Your task to perform on an android device: toggle pop-ups in chrome Image 0: 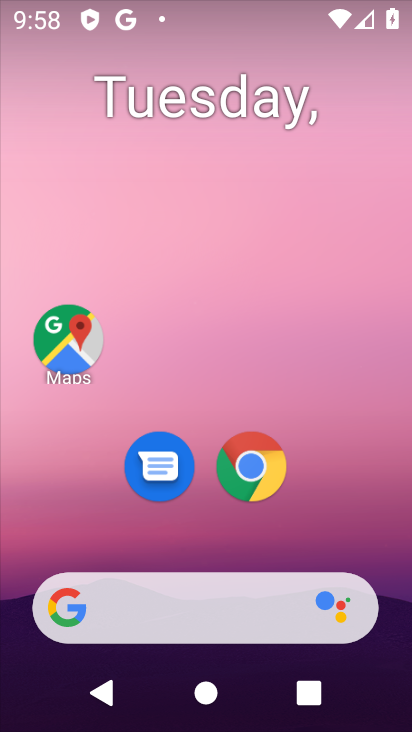
Step 0: click (250, 464)
Your task to perform on an android device: toggle pop-ups in chrome Image 1: 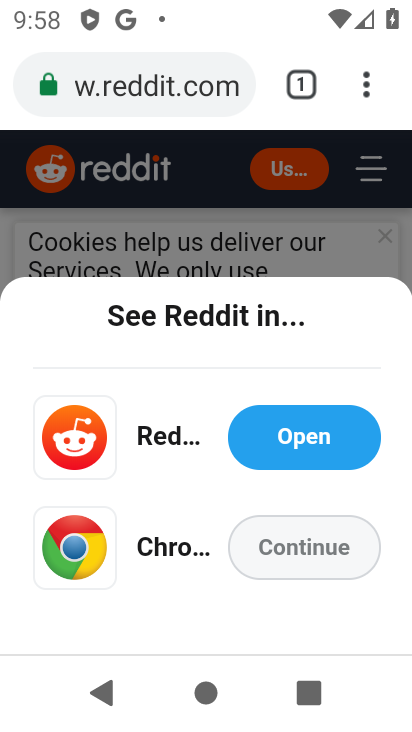
Step 1: drag from (365, 80) to (224, 528)
Your task to perform on an android device: toggle pop-ups in chrome Image 2: 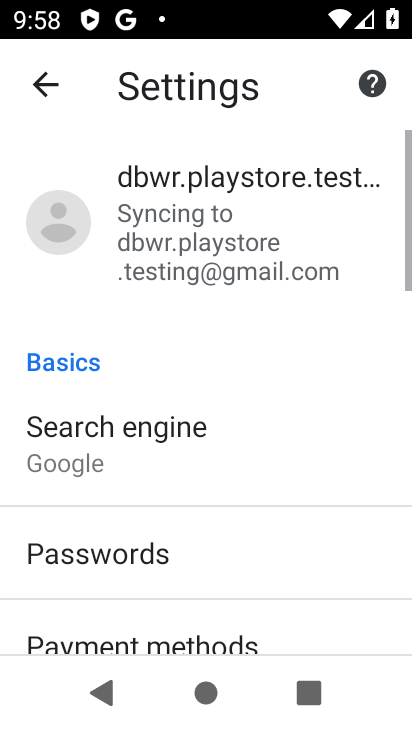
Step 2: drag from (206, 497) to (182, 81)
Your task to perform on an android device: toggle pop-ups in chrome Image 3: 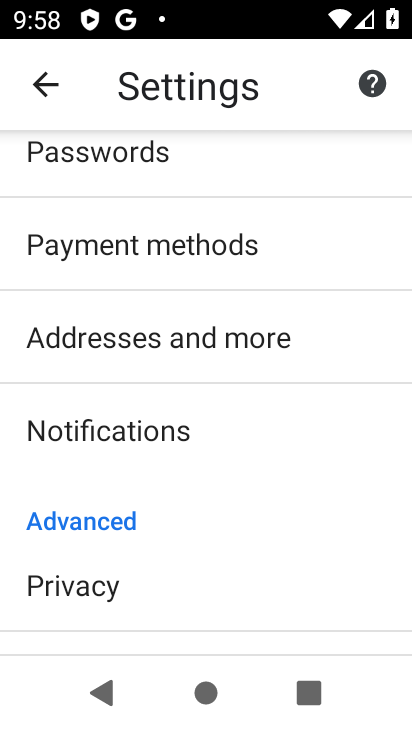
Step 3: drag from (203, 489) to (233, 152)
Your task to perform on an android device: toggle pop-ups in chrome Image 4: 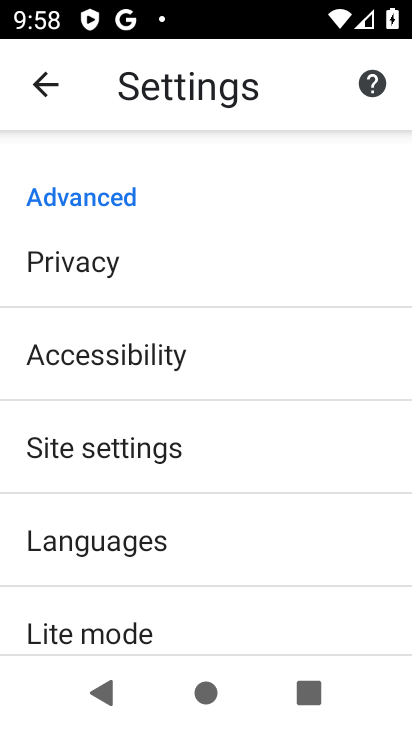
Step 4: click (141, 439)
Your task to perform on an android device: toggle pop-ups in chrome Image 5: 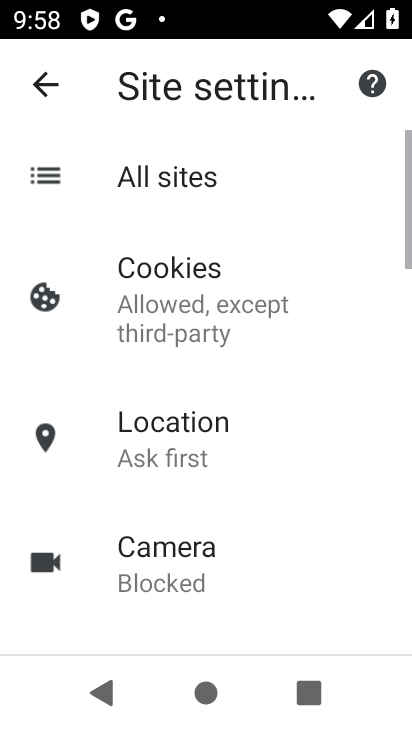
Step 5: drag from (283, 541) to (238, 165)
Your task to perform on an android device: toggle pop-ups in chrome Image 6: 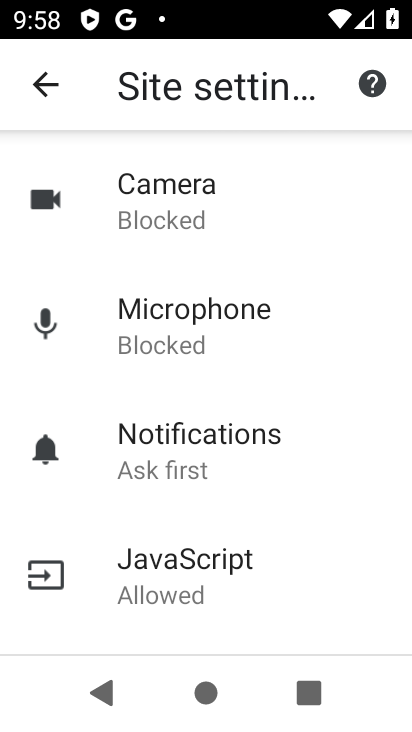
Step 6: drag from (216, 464) to (216, 188)
Your task to perform on an android device: toggle pop-ups in chrome Image 7: 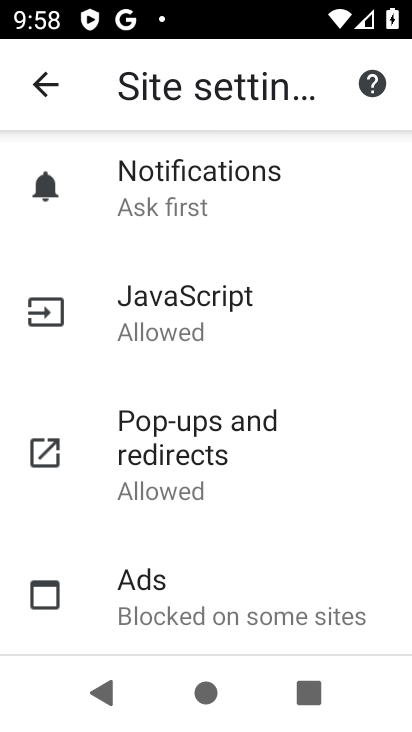
Step 7: click (217, 449)
Your task to perform on an android device: toggle pop-ups in chrome Image 8: 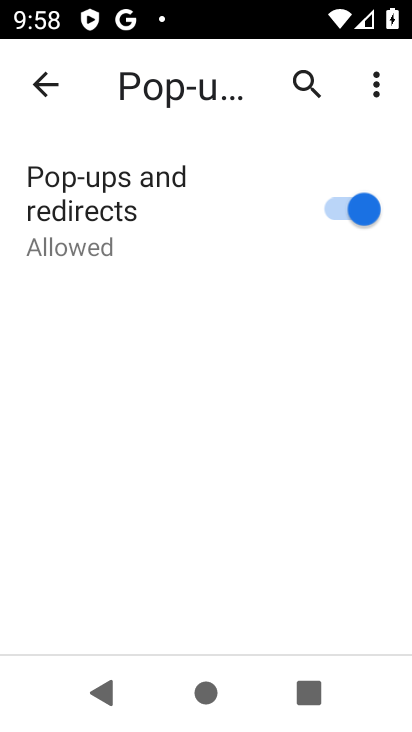
Step 8: click (350, 196)
Your task to perform on an android device: toggle pop-ups in chrome Image 9: 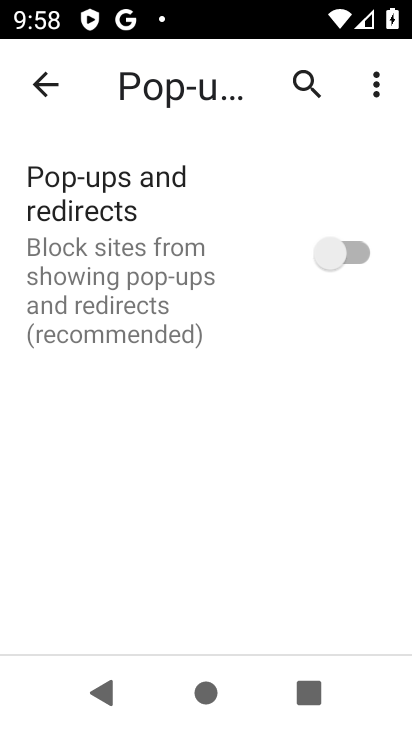
Step 9: task complete